Your task to perform on an android device: Open calendar and show me the second week of next month Image 0: 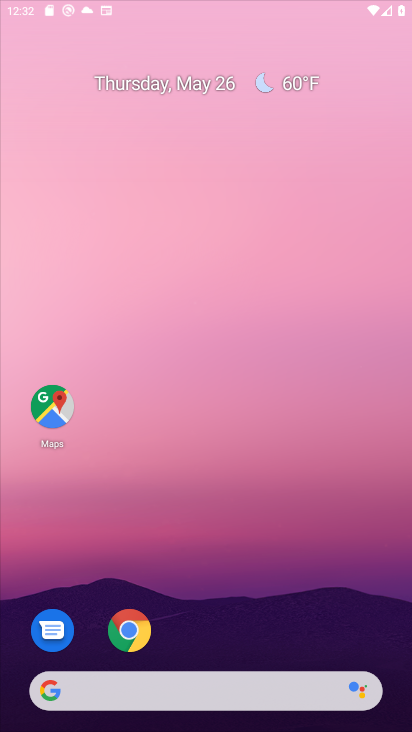
Step 0: drag from (323, 571) to (219, 15)
Your task to perform on an android device: Open calendar and show me the second week of next month Image 1: 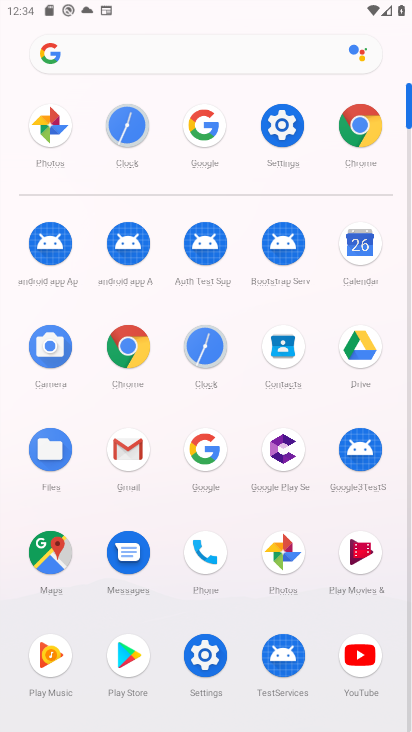
Step 1: click (289, 351)
Your task to perform on an android device: Open calendar and show me the second week of next month Image 2: 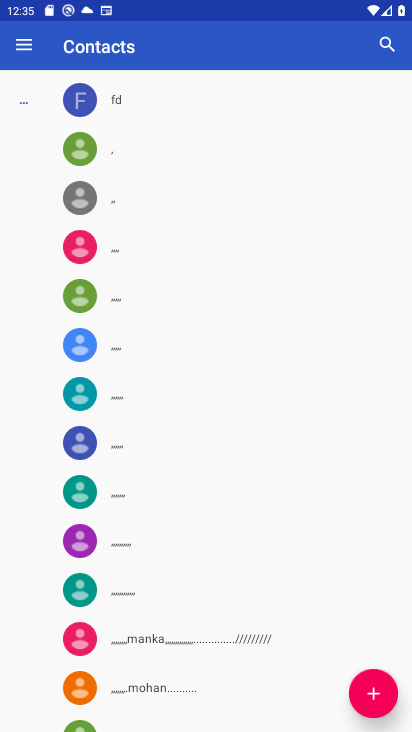
Step 2: press home button
Your task to perform on an android device: Open calendar and show me the second week of next month Image 3: 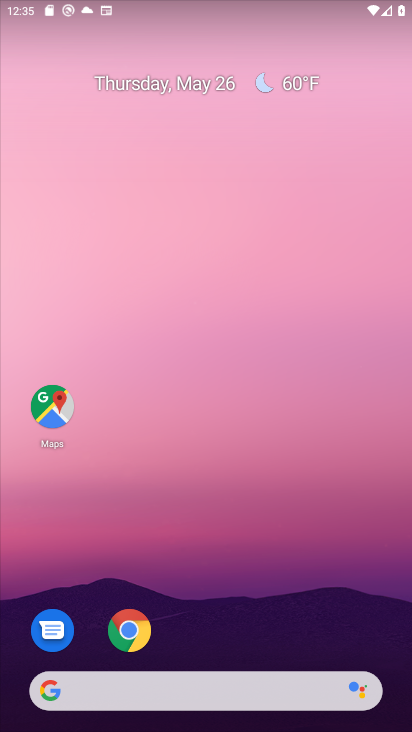
Step 3: drag from (326, 532) to (335, 20)
Your task to perform on an android device: Open calendar and show me the second week of next month Image 4: 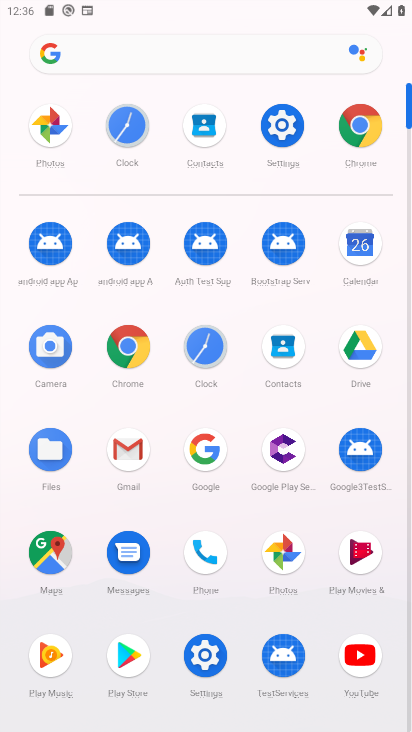
Step 4: click (367, 239)
Your task to perform on an android device: Open calendar and show me the second week of next month Image 5: 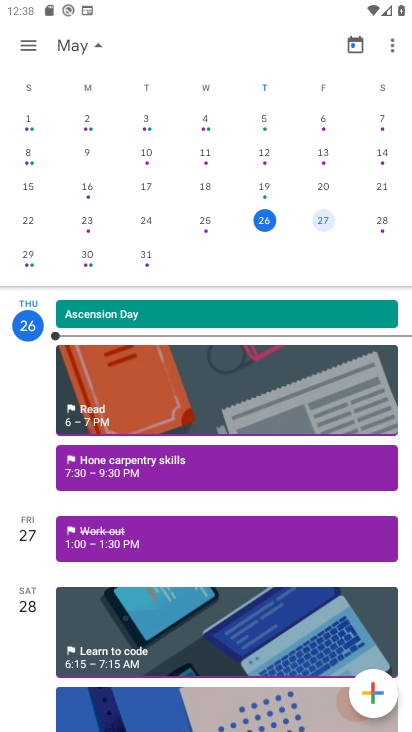
Step 5: task complete